Your task to perform on an android device: choose inbox layout in the gmail app Image 0: 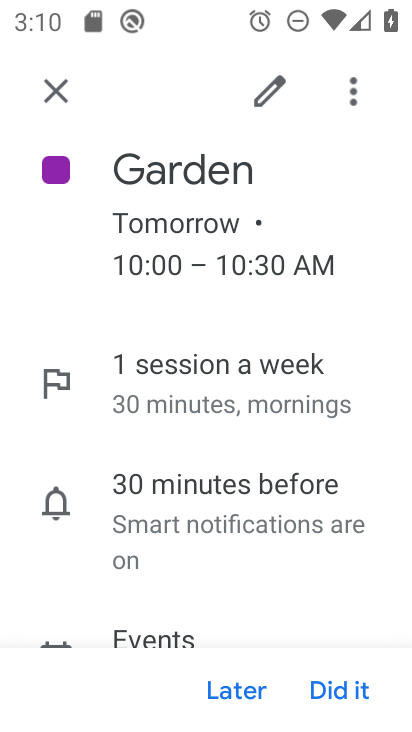
Step 0: press back button
Your task to perform on an android device: choose inbox layout in the gmail app Image 1: 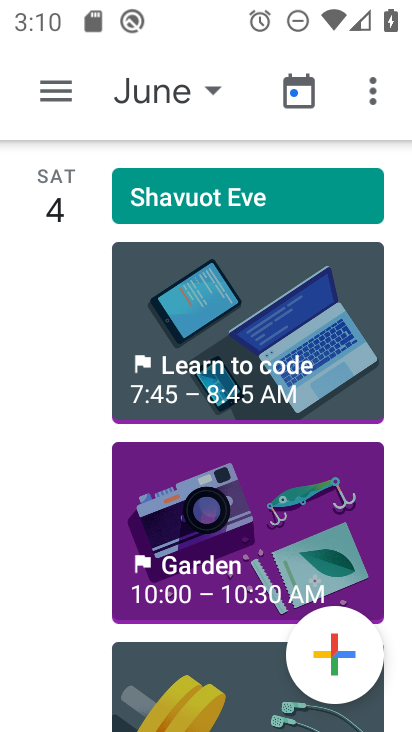
Step 1: press home button
Your task to perform on an android device: choose inbox layout in the gmail app Image 2: 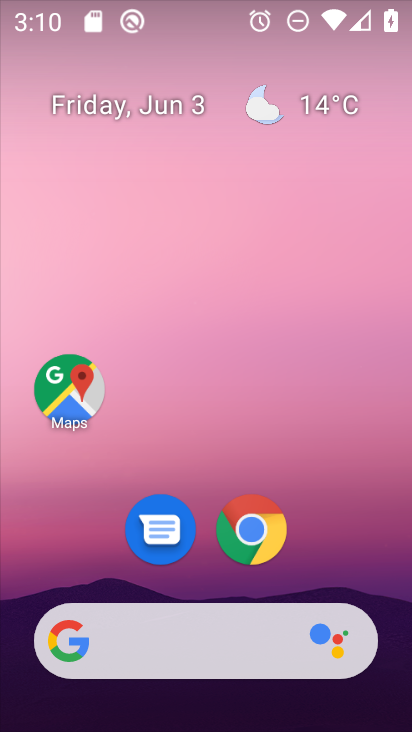
Step 2: drag from (368, 531) to (365, 161)
Your task to perform on an android device: choose inbox layout in the gmail app Image 3: 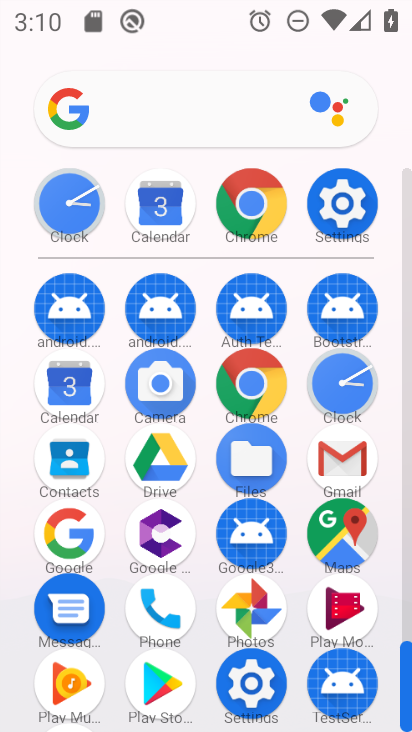
Step 3: click (336, 459)
Your task to perform on an android device: choose inbox layout in the gmail app Image 4: 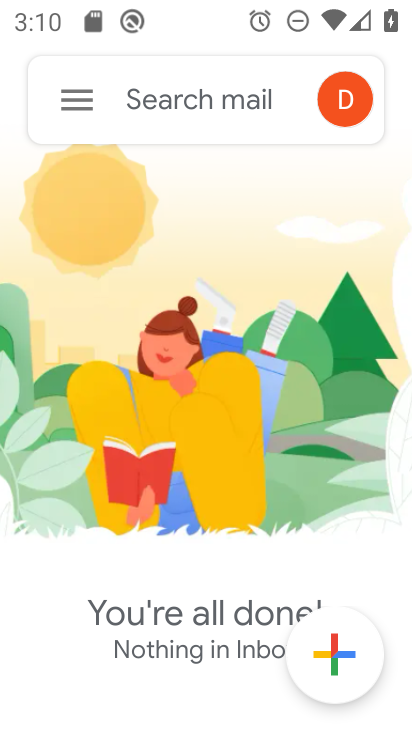
Step 4: click (79, 103)
Your task to perform on an android device: choose inbox layout in the gmail app Image 5: 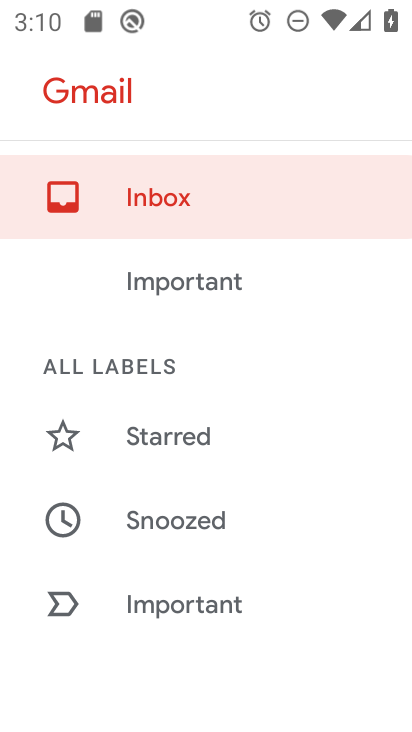
Step 5: drag from (281, 381) to (295, 272)
Your task to perform on an android device: choose inbox layout in the gmail app Image 6: 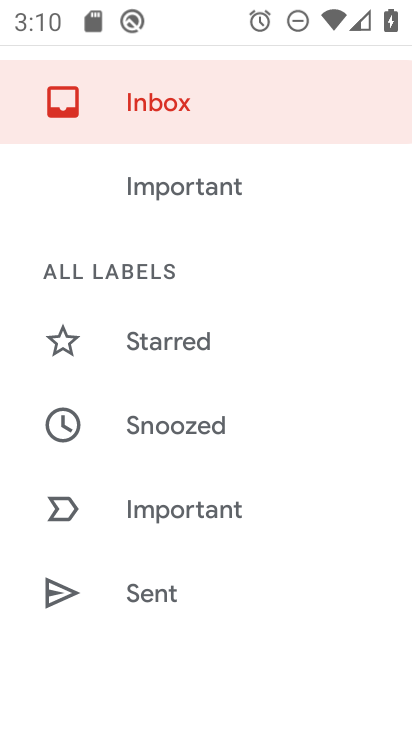
Step 6: drag from (299, 404) to (299, 218)
Your task to perform on an android device: choose inbox layout in the gmail app Image 7: 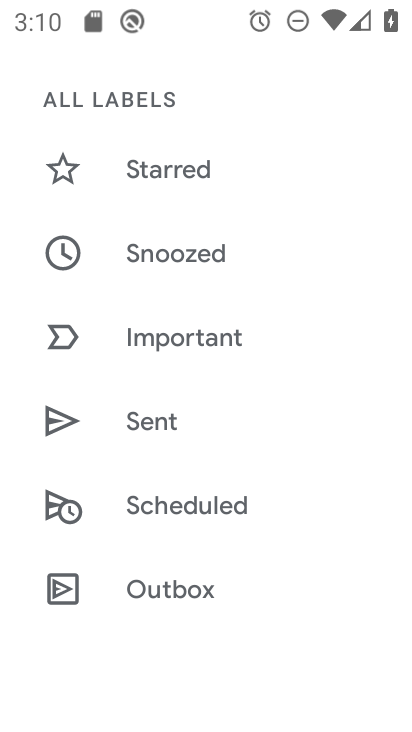
Step 7: drag from (303, 407) to (318, 289)
Your task to perform on an android device: choose inbox layout in the gmail app Image 8: 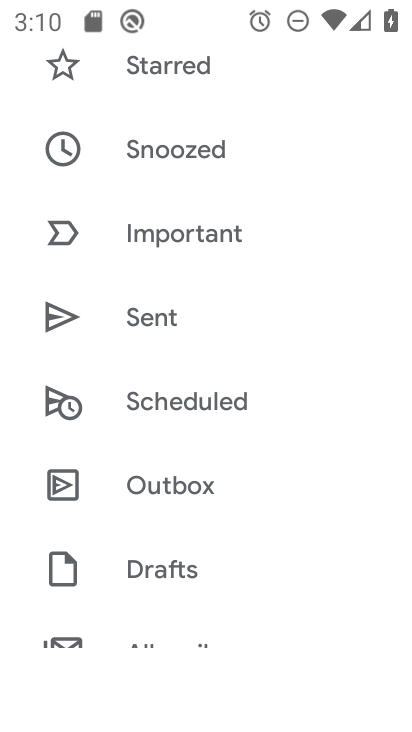
Step 8: drag from (319, 387) to (328, 250)
Your task to perform on an android device: choose inbox layout in the gmail app Image 9: 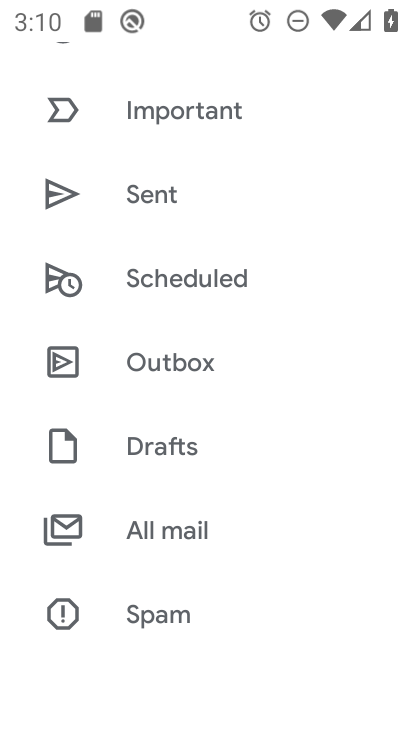
Step 9: drag from (315, 448) to (327, 329)
Your task to perform on an android device: choose inbox layout in the gmail app Image 10: 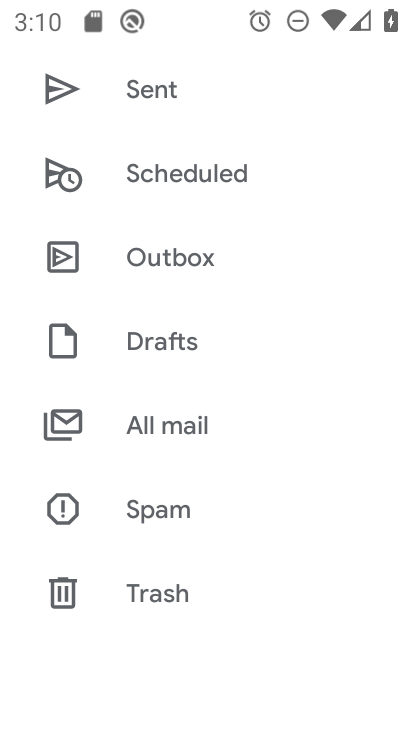
Step 10: drag from (327, 461) to (329, 327)
Your task to perform on an android device: choose inbox layout in the gmail app Image 11: 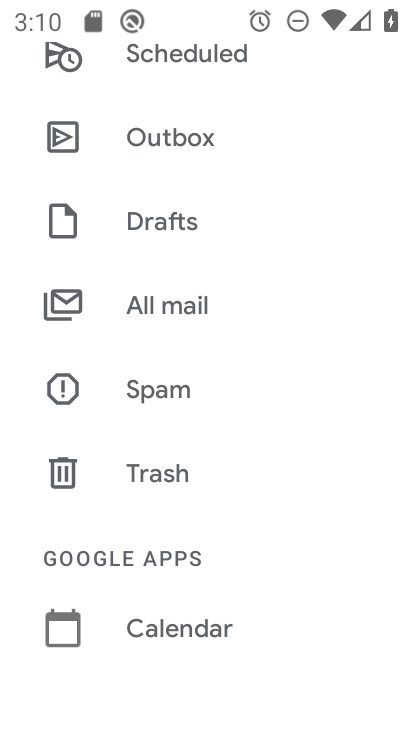
Step 11: drag from (317, 470) to (313, 332)
Your task to perform on an android device: choose inbox layout in the gmail app Image 12: 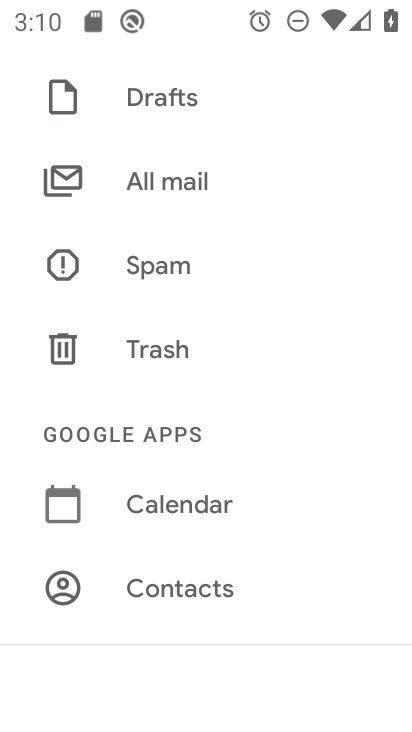
Step 12: drag from (316, 529) to (297, 353)
Your task to perform on an android device: choose inbox layout in the gmail app Image 13: 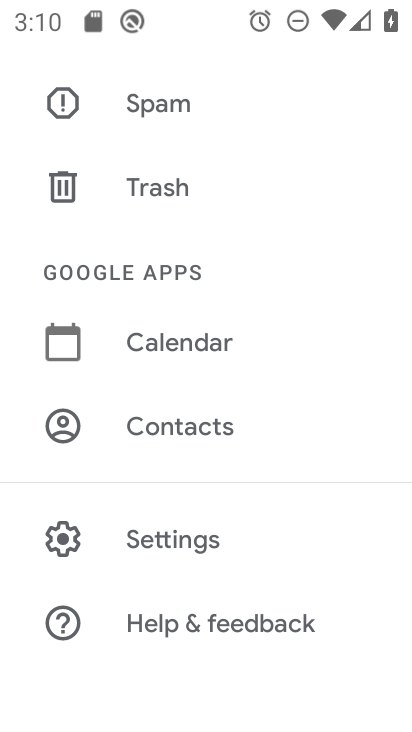
Step 13: click (238, 554)
Your task to perform on an android device: choose inbox layout in the gmail app Image 14: 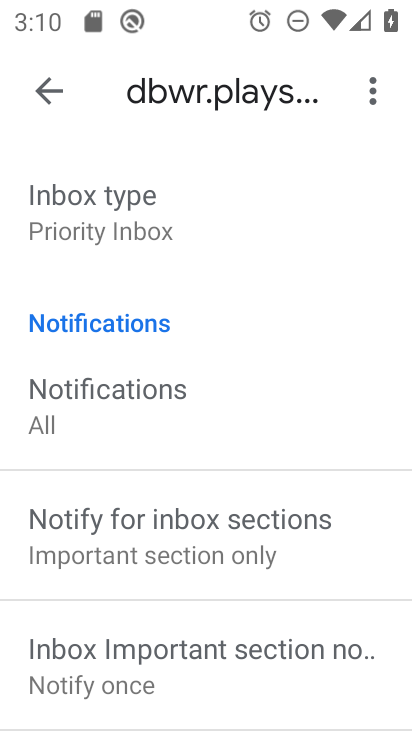
Step 14: drag from (251, 575) to (252, 417)
Your task to perform on an android device: choose inbox layout in the gmail app Image 15: 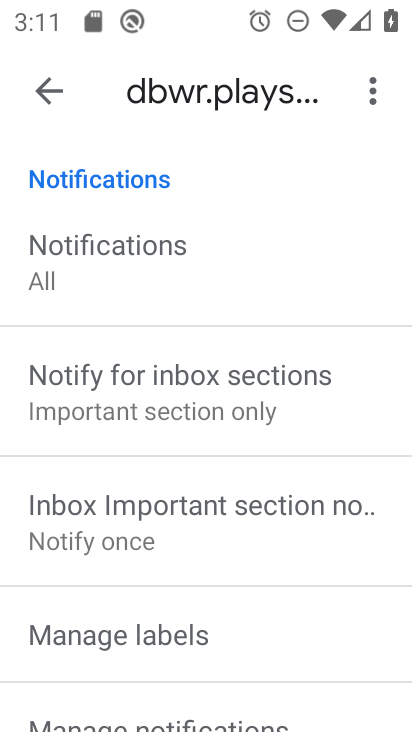
Step 15: drag from (260, 227) to (285, 418)
Your task to perform on an android device: choose inbox layout in the gmail app Image 16: 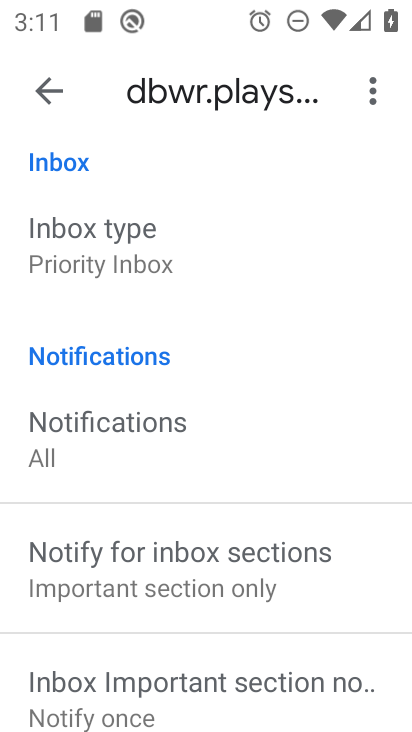
Step 16: drag from (255, 253) to (274, 416)
Your task to perform on an android device: choose inbox layout in the gmail app Image 17: 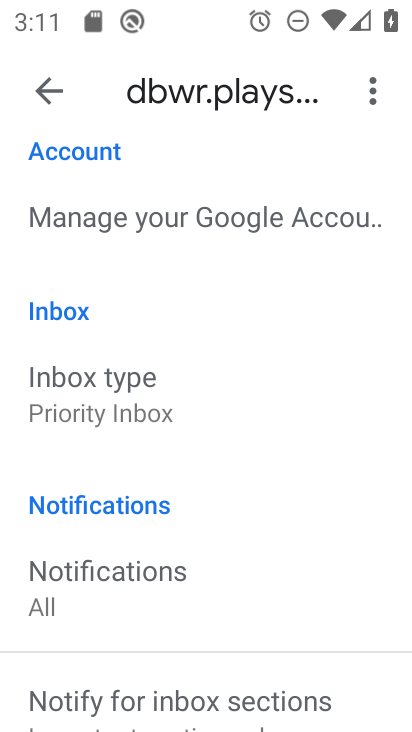
Step 17: click (184, 409)
Your task to perform on an android device: choose inbox layout in the gmail app Image 18: 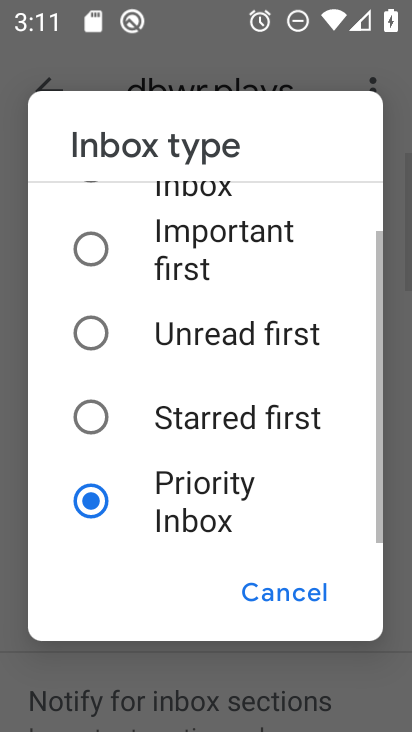
Step 18: click (191, 429)
Your task to perform on an android device: choose inbox layout in the gmail app Image 19: 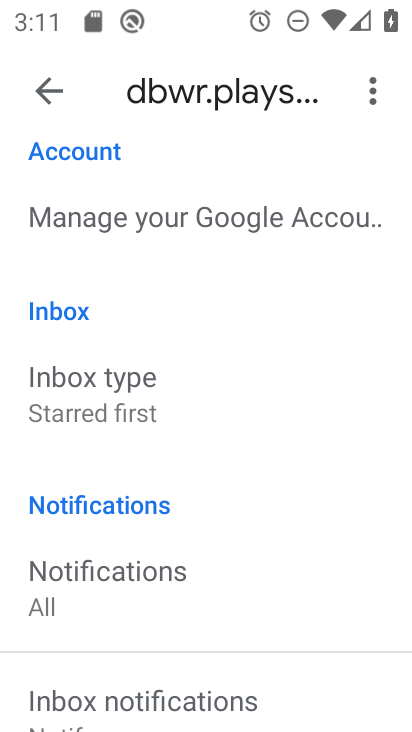
Step 19: task complete